Your task to perform on an android device: change the clock style Image 0: 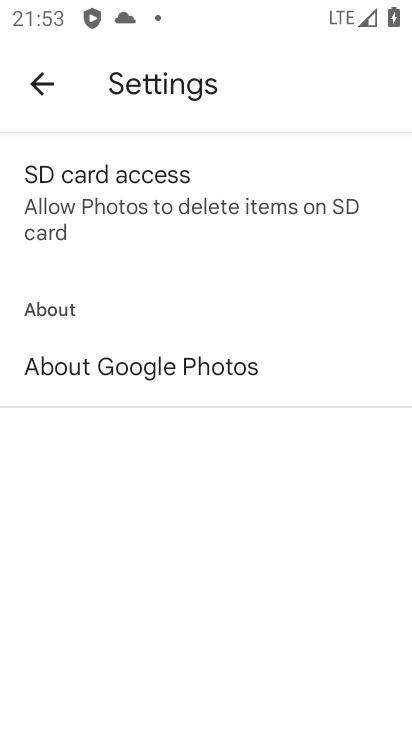
Step 0: press home button
Your task to perform on an android device: change the clock style Image 1: 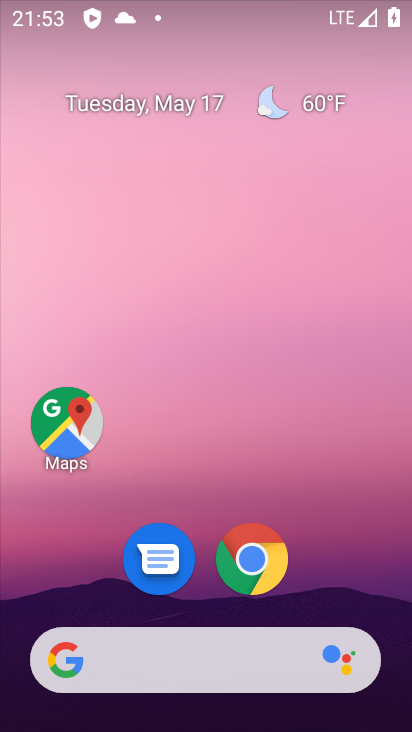
Step 1: drag from (359, 506) to (365, 77)
Your task to perform on an android device: change the clock style Image 2: 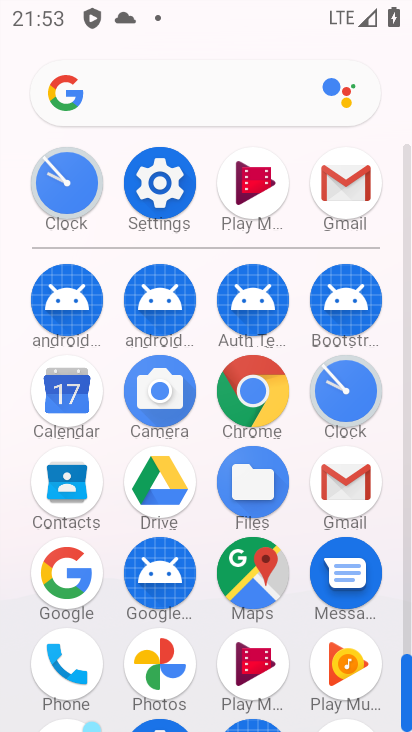
Step 2: click (350, 400)
Your task to perform on an android device: change the clock style Image 3: 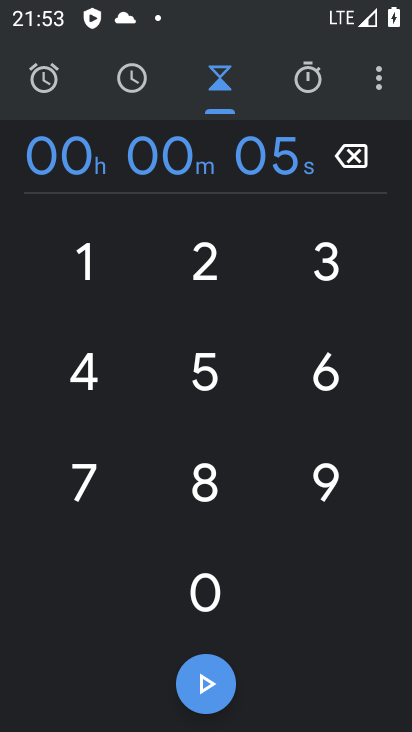
Step 3: click (385, 77)
Your task to perform on an android device: change the clock style Image 4: 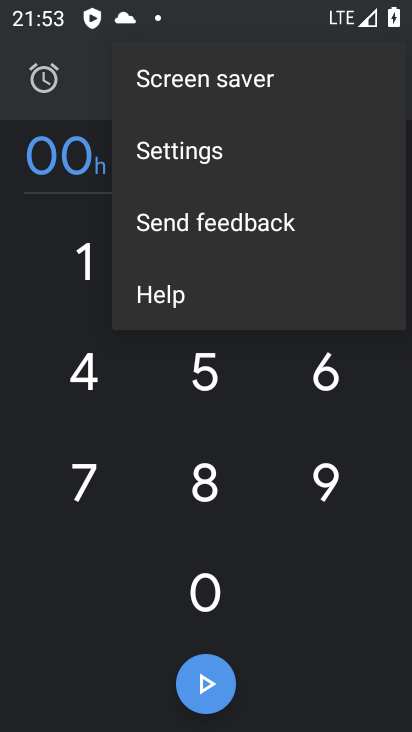
Step 4: click (197, 167)
Your task to perform on an android device: change the clock style Image 5: 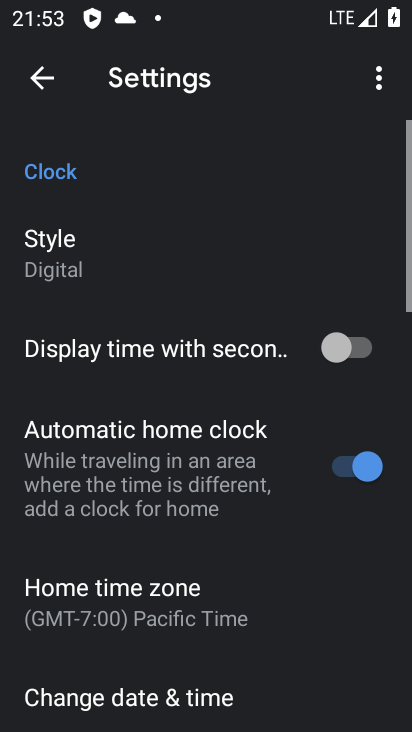
Step 5: click (35, 251)
Your task to perform on an android device: change the clock style Image 6: 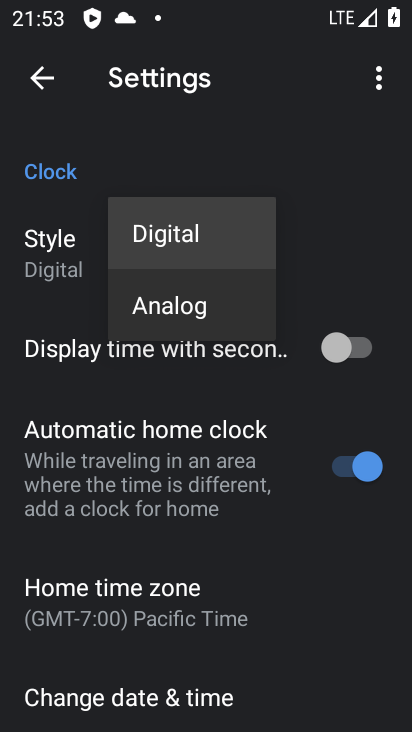
Step 6: click (175, 318)
Your task to perform on an android device: change the clock style Image 7: 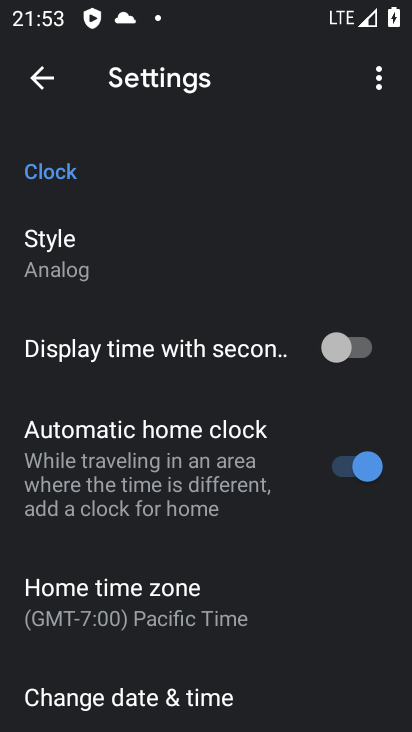
Step 7: task complete